Your task to perform on an android device: Set the phone to "Do not disturb". Image 0: 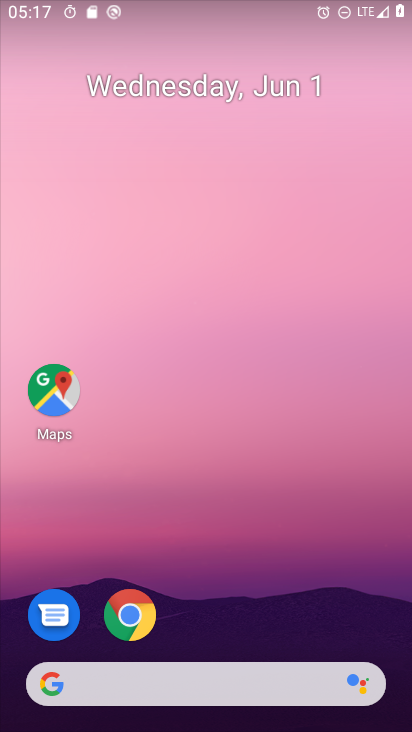
Step 0: drag from (182, 638) to (398, 211)
Your task to perform on an android device: Set the phone to "Do not disturb". Image 1: 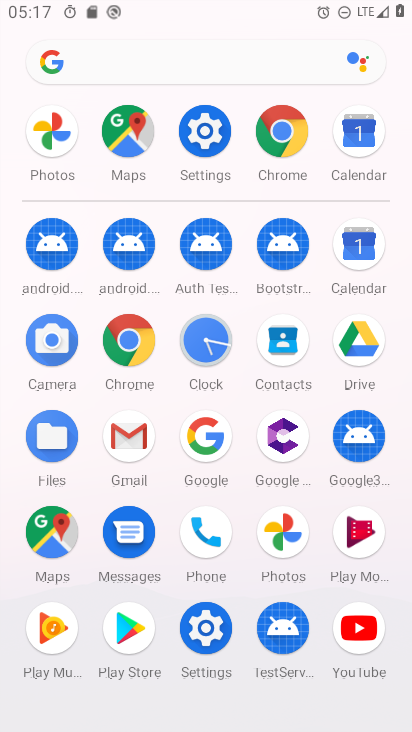
Step 1: click (191, 625)
Your task to perform on an android device: Set the phone to "Do not disturb". Image 2: 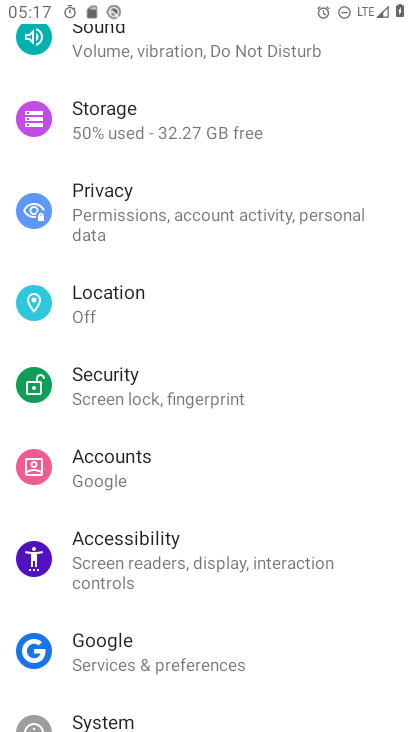
Step 2: drag from (145, 241) to (166, 628)
Your task to perform on an android device: Set the phone to "Do not disturb". Image 3: 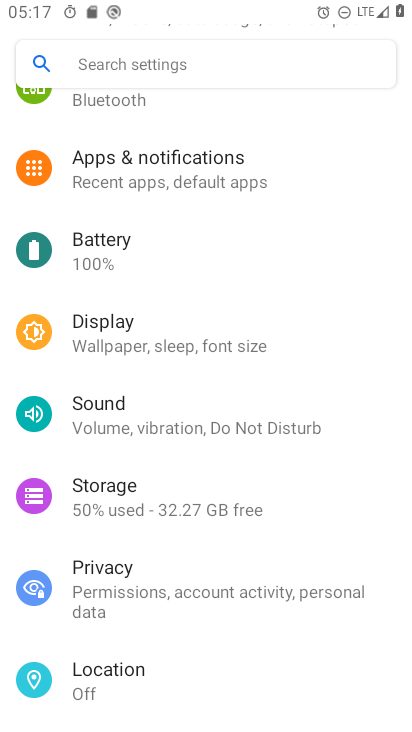
Step 3: click (189, 418)
Your task to perform on an android device: Set the phone to "Do not disturb". Image 4: 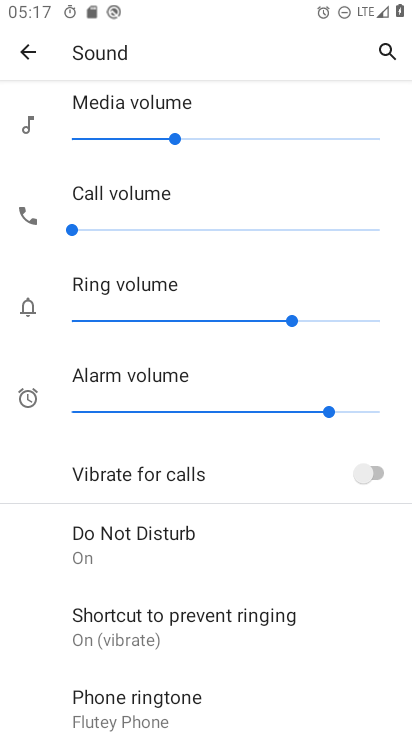
Step 4: click (189, 551)
Your task to perform on an android device: Set the phone to "Do not disturb". Image 5: 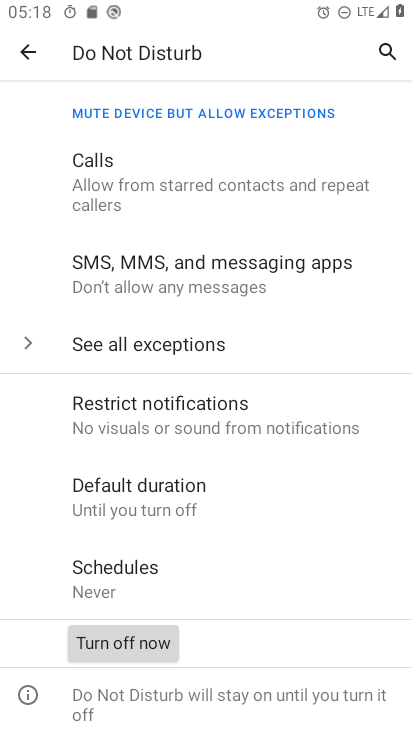
Step 5: task complete